Your task to perform on an android device: Is it going to rain this weekend? Image 0: 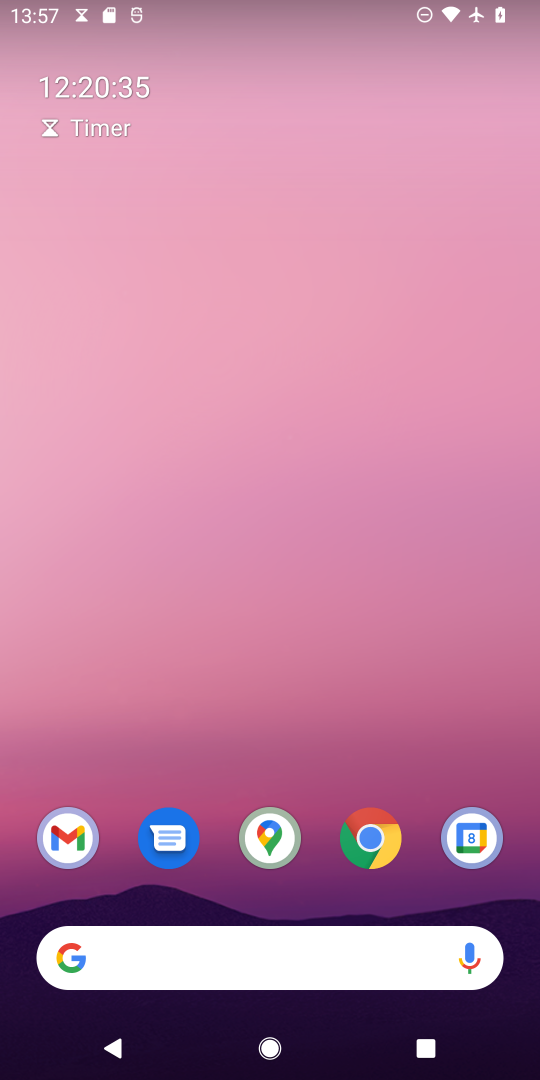
Step 0: press home button
Your task to perform on an android device: Is it going to rain this weekend? Image 1: 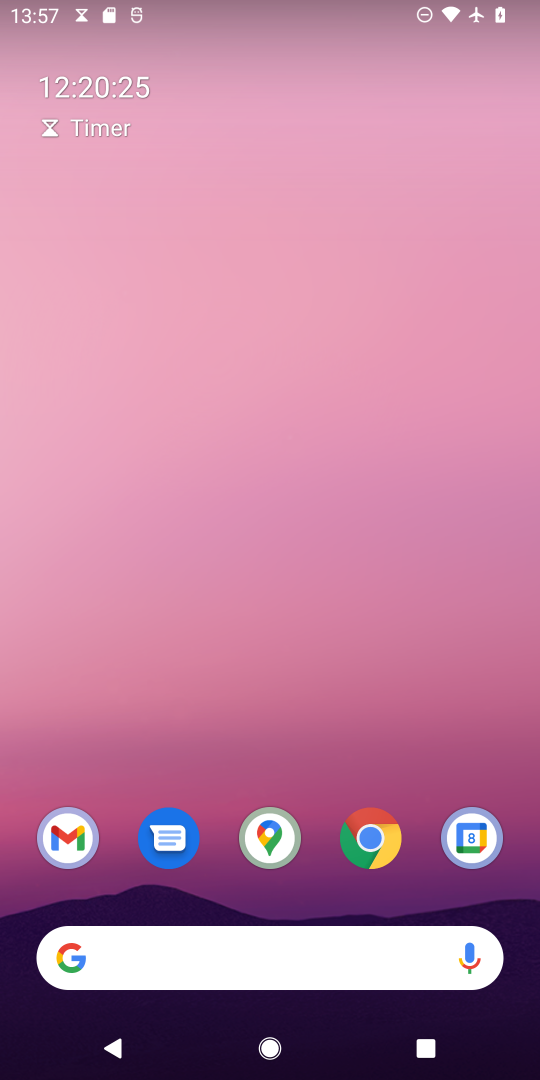
Step 1: click (70, 956)
Your task to perform on an android device: Is it going to rain this weekend? Image 2: 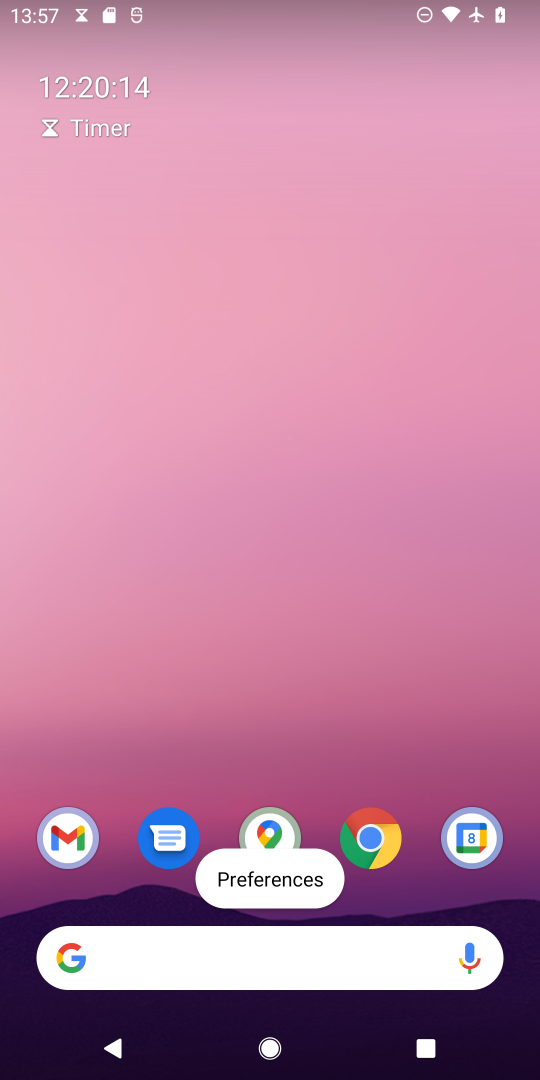
Step 2: type "rain this weekend?"
Your task to perform on an android device: Is it going to rain this weekend? Image 3: 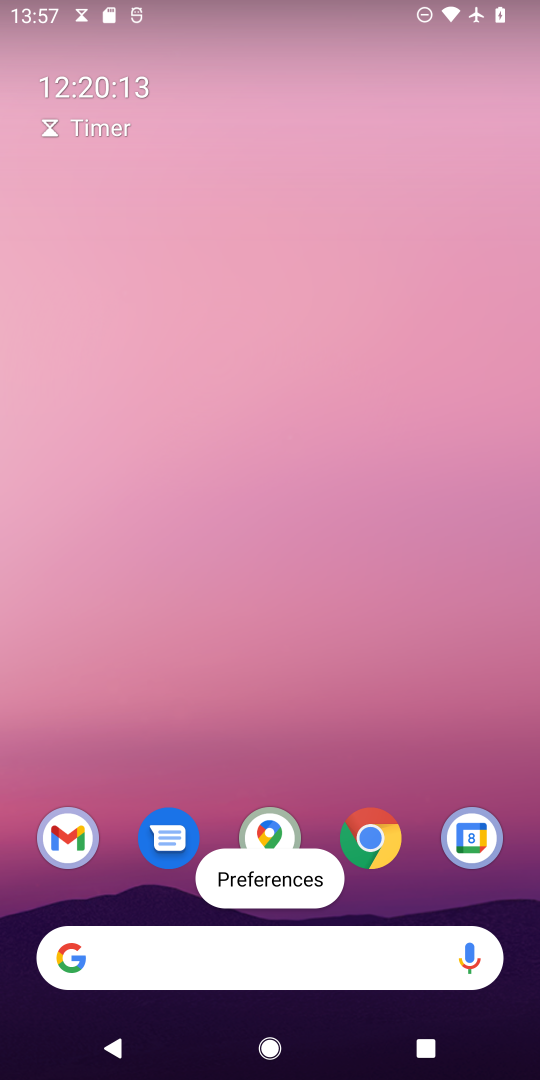
Step 3: click (59, 952)
Your task to perform on an android device: Is it going to rain this weekend? Image 4: 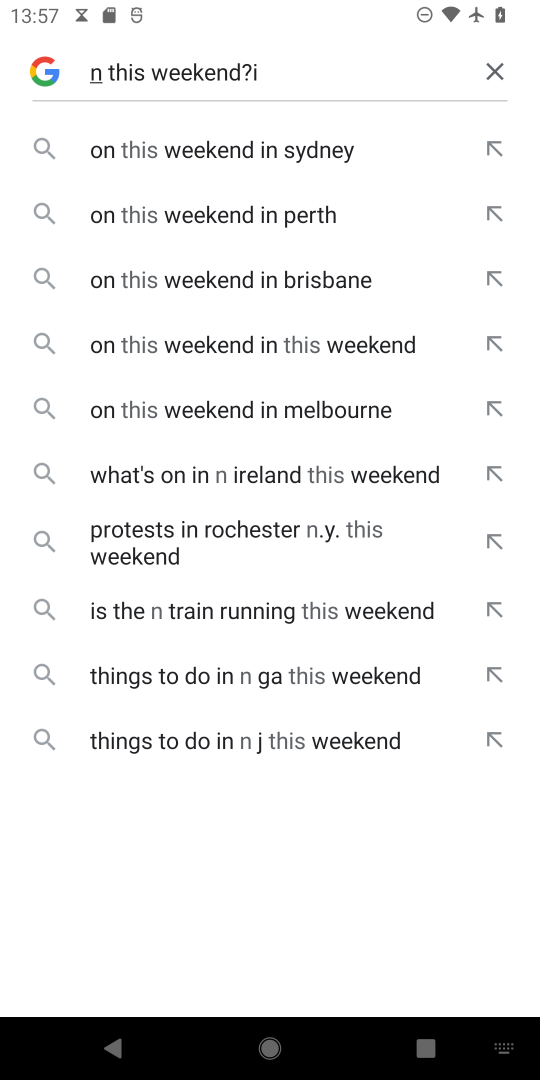
Step 4: click (69, 949)
Your task to perform on an android device: Is it going to rain this weekend? Image 5: 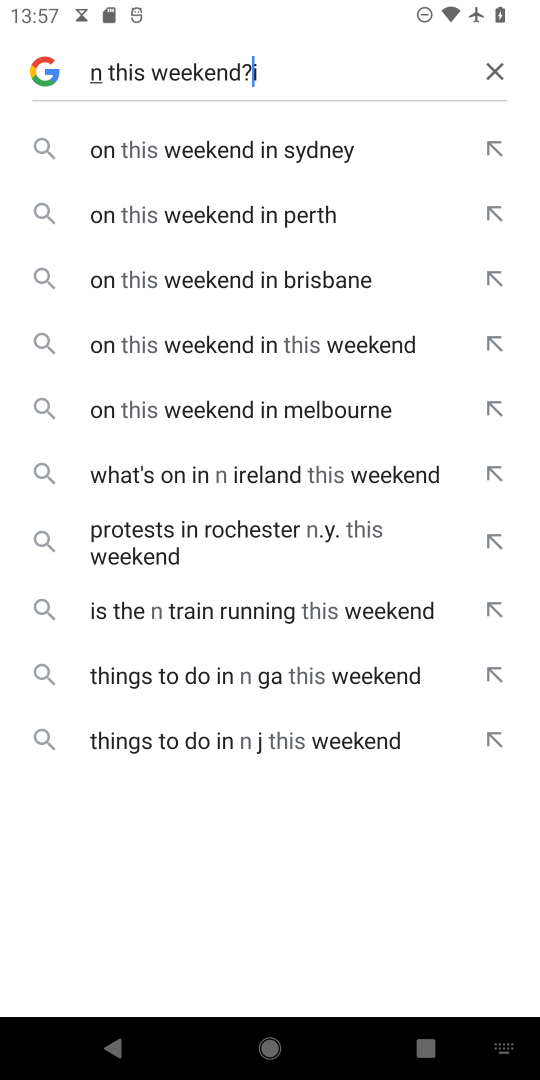
Step 5: click (498, 72)
Your task to perform on an android device: Is it going to rain this weekend? Image 6: 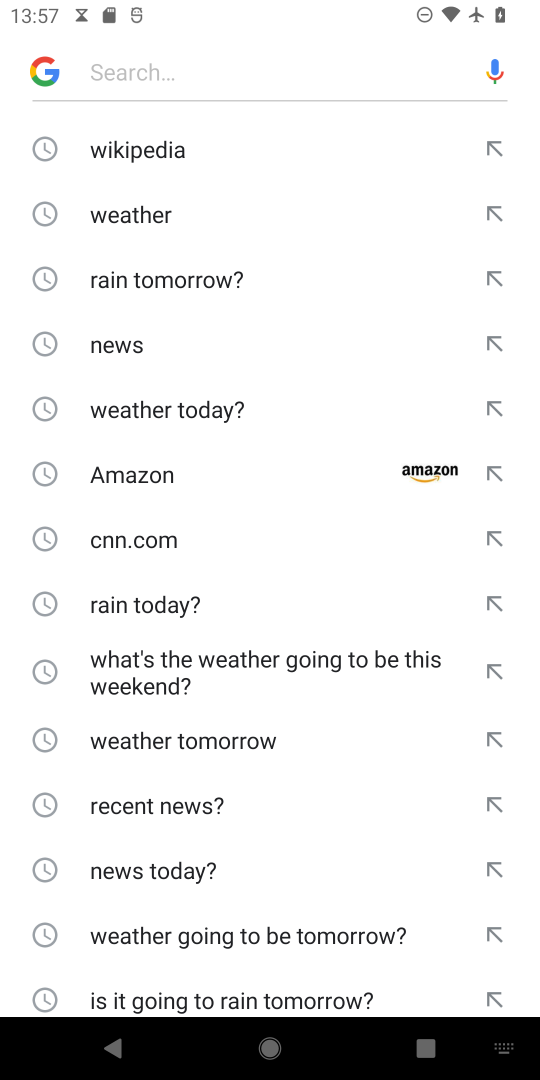
Step 6: type "rain this weekend?"
Your task to perform on an android device: Is it going to rain this weekend? Image 7: 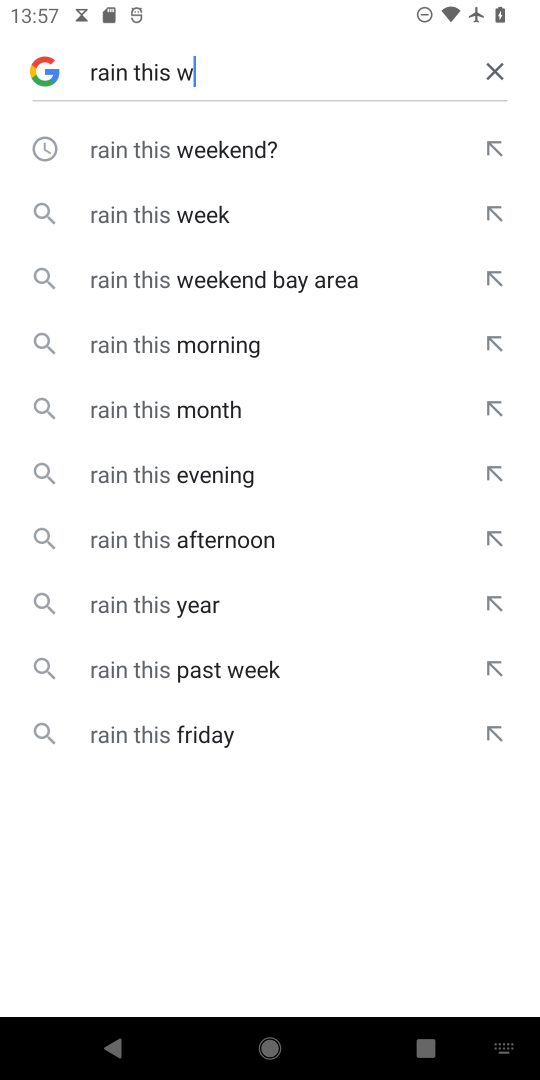
Step 7: press enter
Your task to perform on an android device: Is it going to rain this weekend? Image 8: 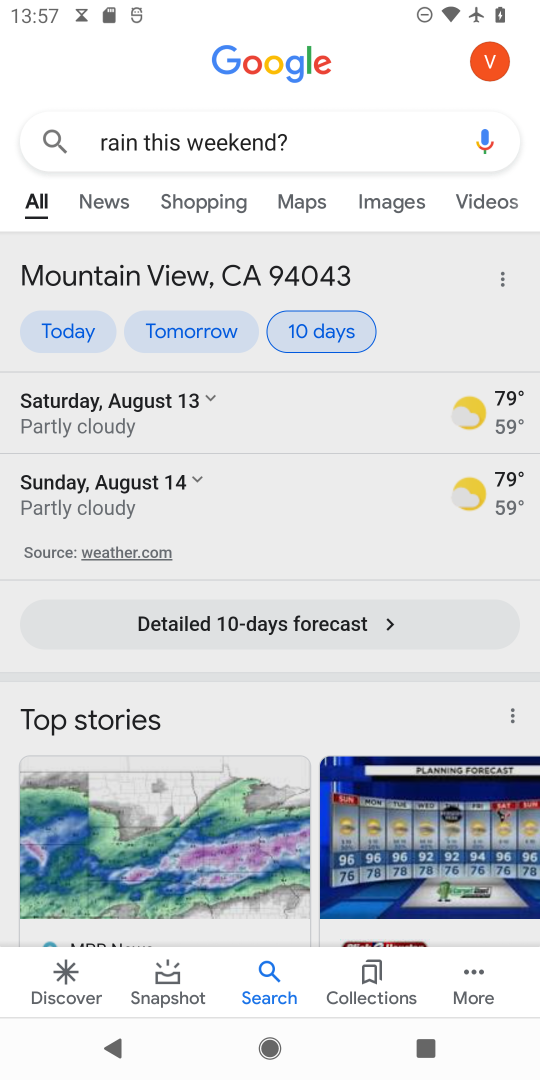
Step 8: task complete